Your task to perform on an android device: toggle show notifications on the lock screen Image 0: 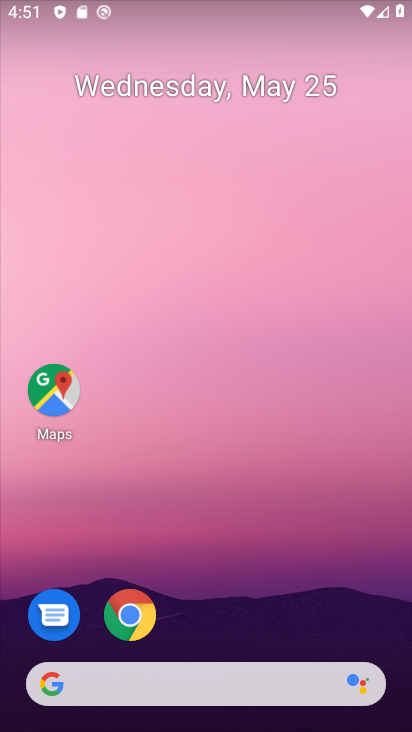
Step 0: drag from (302, 593) to (309, 56)
Your task to perform on an android device: toggle show notifications on the lock screen Image 1: 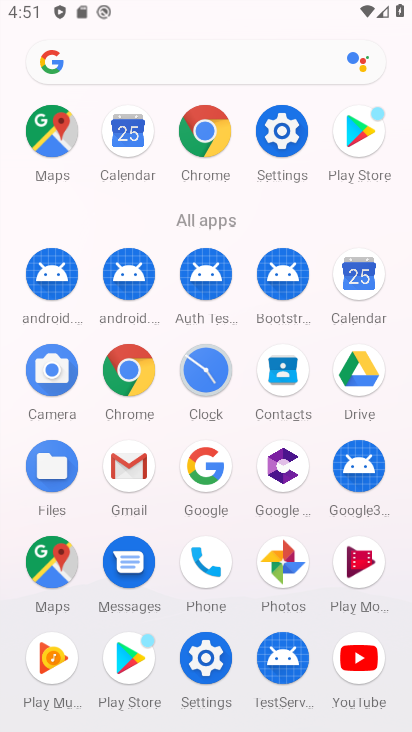
Step 1: click (231, 651)
Your task to perform on an android device: toggle show notifications on the lock screen Image 2: 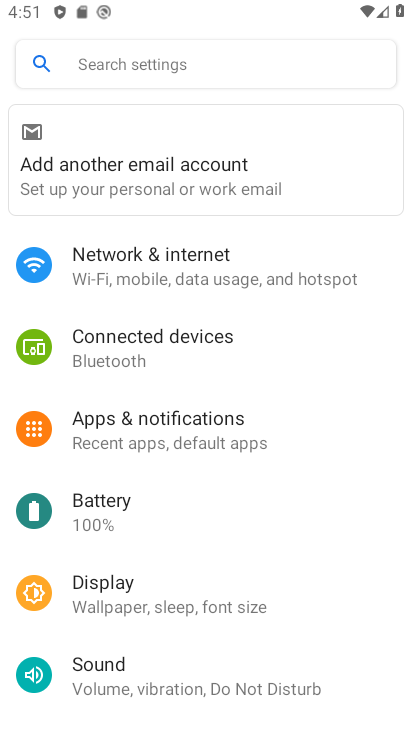
Step 2: click (109, 441)
Your task to perform on an android device: toggle show notifications on the lock screen Image 3: 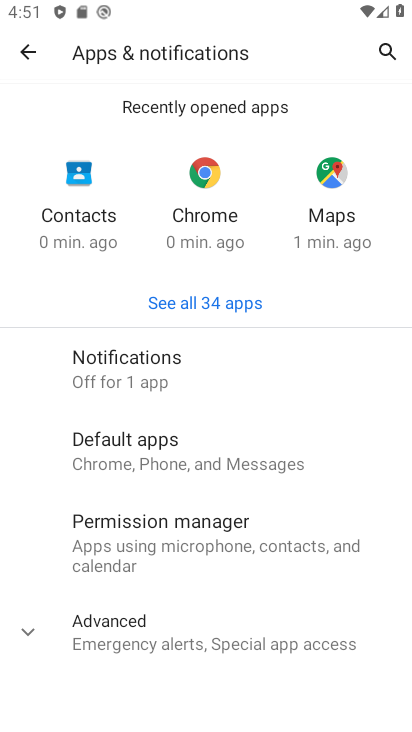
Step 3: click (90, 375)
Your task to perform on an android device: toggle show notifications on the lock screen Image 4: 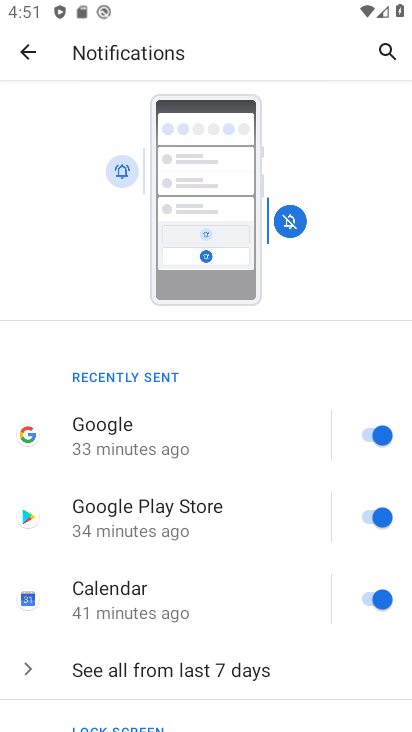
Step 4: drag from (244, 687) to (339, 220)
Your task to perform on an android device: toggle show notifications on the lock screen Image 5: 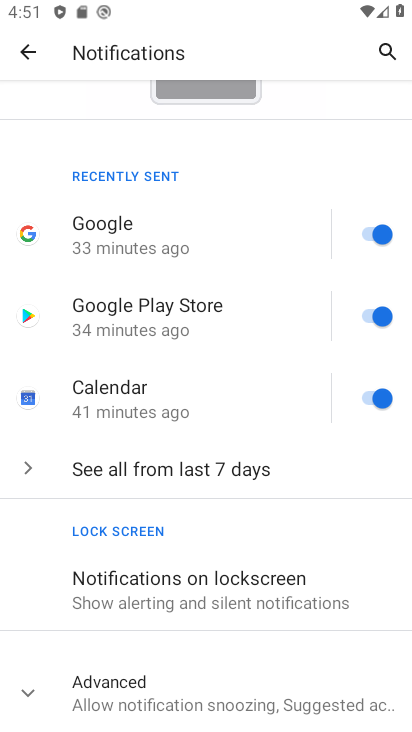
Step 5: click (169, 683)
Your task to perform on an android device: toggle show notifications on the lock screen Image 6: 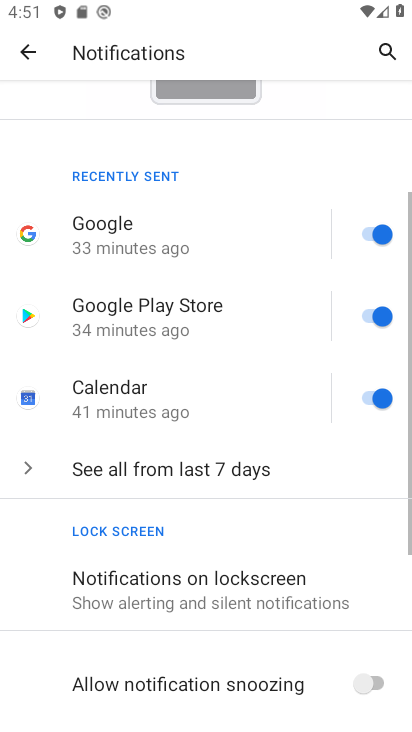
Step 6: click (151, 577)
Your task to perform on an android device: toggle show notifications on the lock screen Image 7: 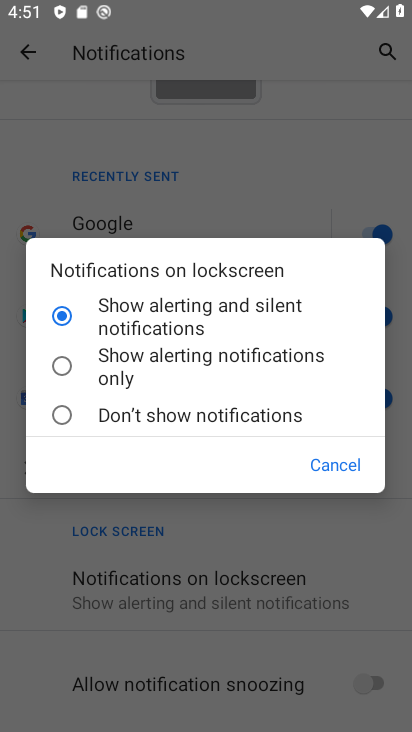
Step 7: click (85, 367)
Your task to perform on an android device: toggle show notifications on the lock screen Image 8: 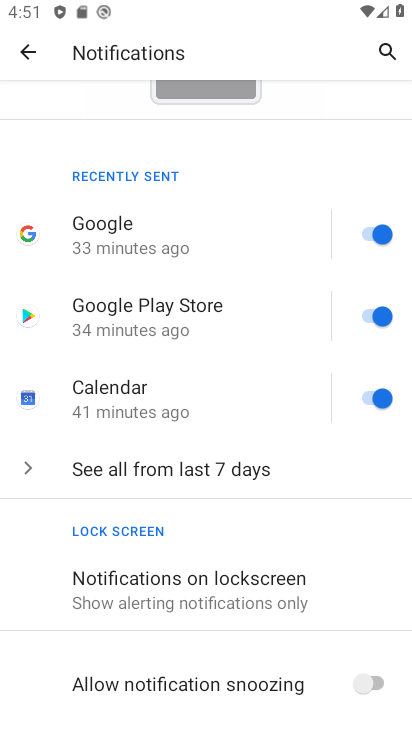
Step 8: task complete